Your task to perform on an android device: set default search engine in the chrome app Image 0: 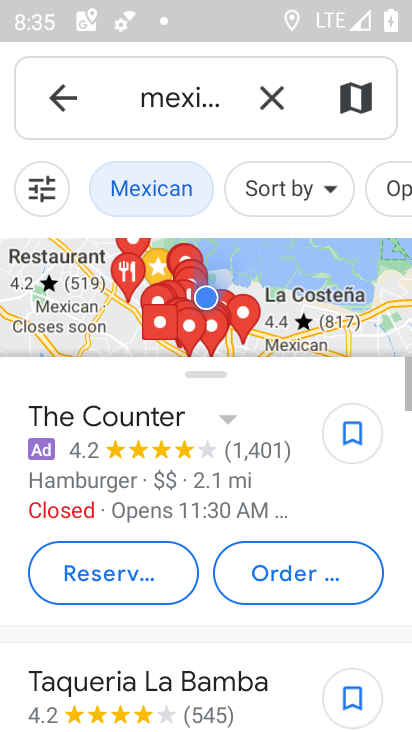
Step 0: press home button
Your task to perform on an android device: set default search engine in the chrome app Image 1: 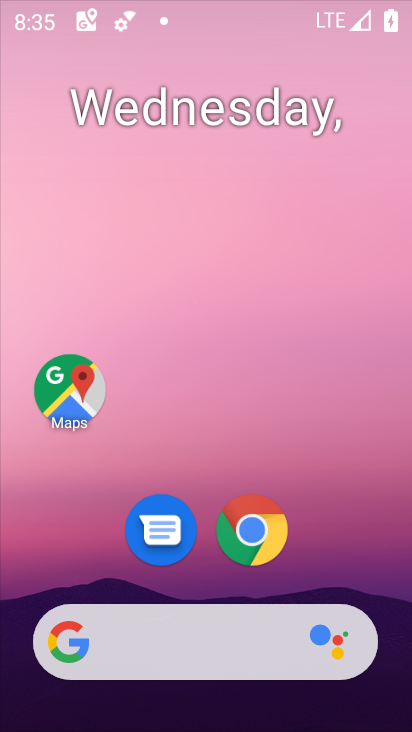
Step 1: drag from (397, 625) to (319, 32)
Your task to perform on an android device: set default search engine in the chrome app Image 2: 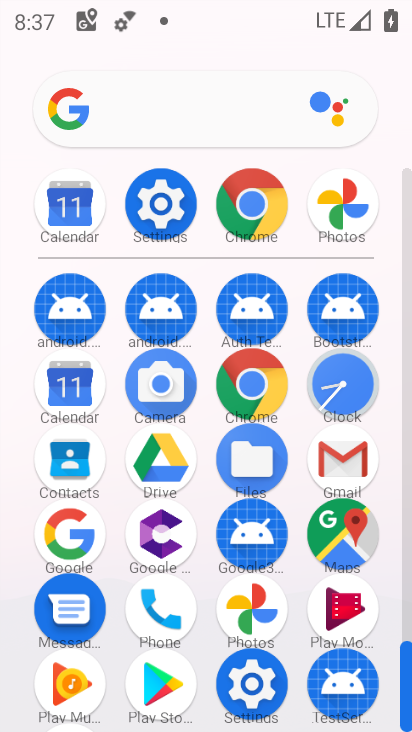
Step 2: click (269, 370)
Your task to perform on an android device: set default search engine in the chrome app Image 3: 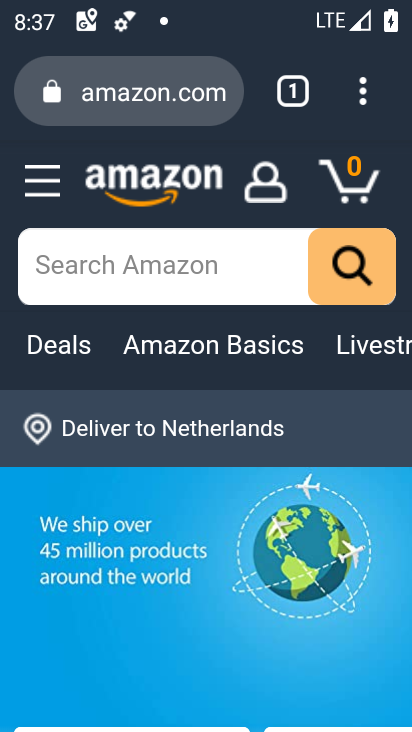
Step 3: press back button
Your task to perform on an android device: set default search engine in the chrome app Image 4: 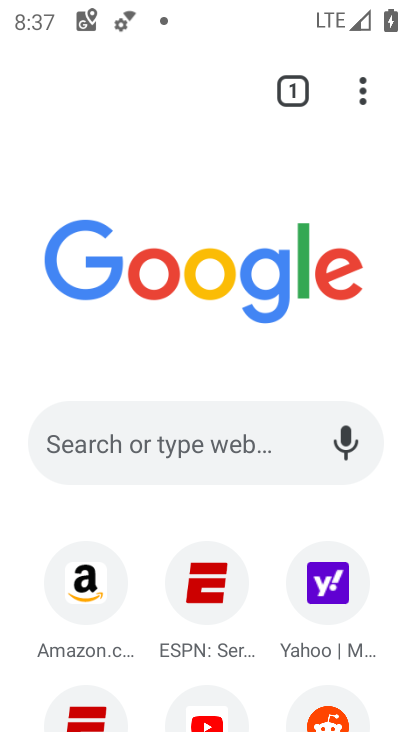
Step 4: click (357, 76)
Your task to perform on an android device: set default search engine in the chrome app Image 5: 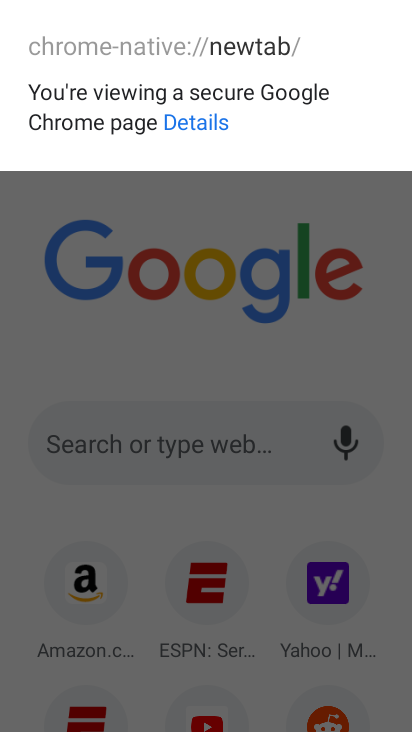
Step 5: click (282, 318)
Your task to perform on an android device: set default search engine in the chrome app Image 6: 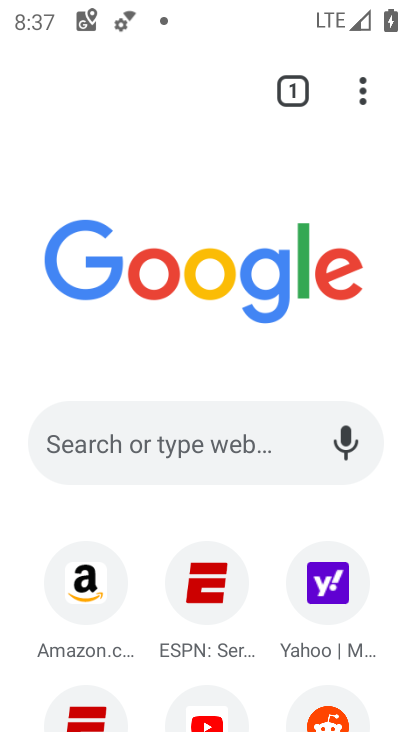
Step 6: click (367, 89)
Your task to perform on an android device: set default search engine in the chrome app Image 7: 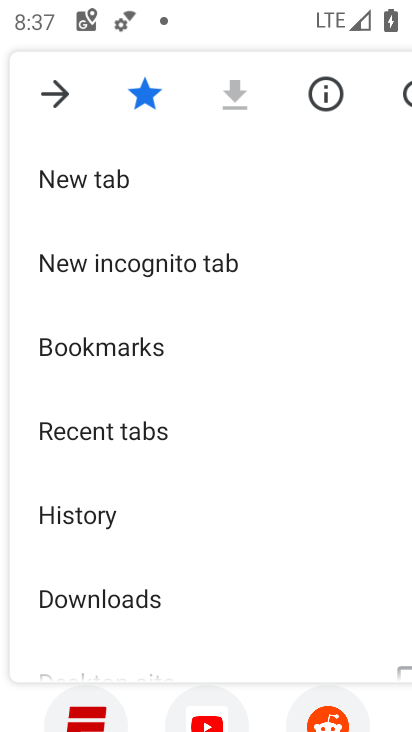
Step 7: drag from (107, 596) to (170, 380)
Your task to perform on an android device: set default search engine in the chrome app Image 8: 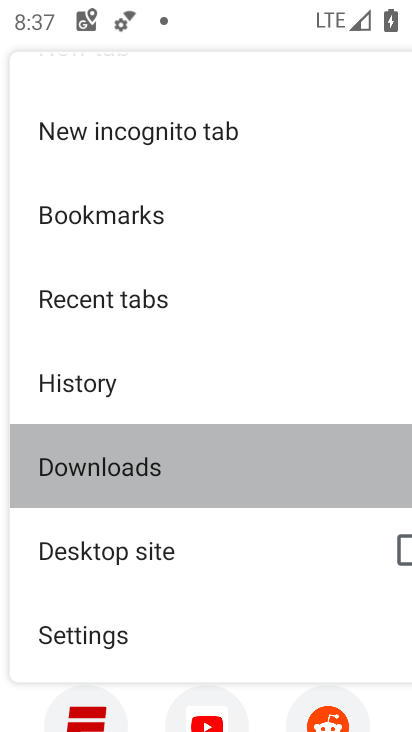
Step 8: drag from (175, 274) to (165, 198)
Your task to perform on an android device: set default search engine in the chrome app Image 9: 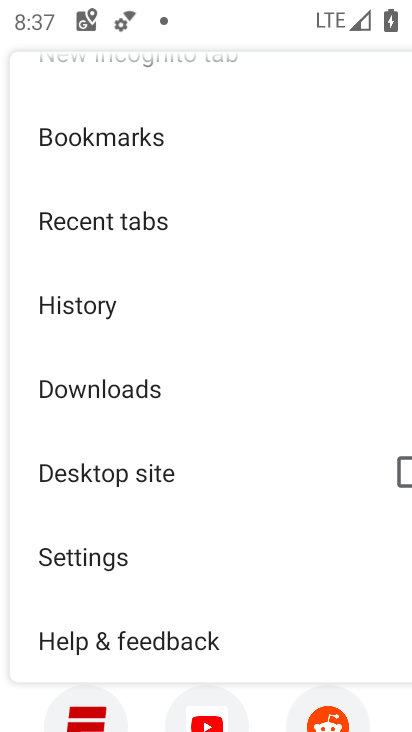
Step 9: click (125, 551)
Your task to perform on an android device: set default search engine in the chrome app Image 10: 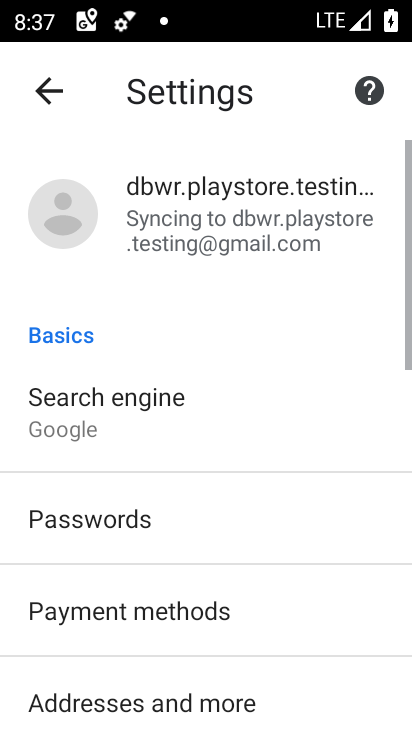
Step 10: click (111, 440)
Your task to perform on an android device: set default search engine in the chrome app Image 11: 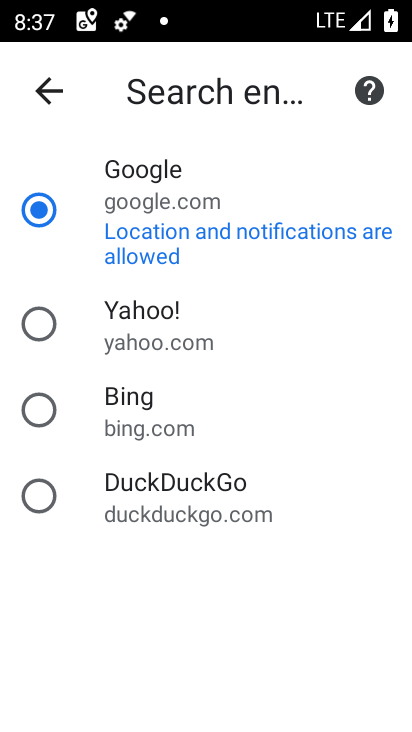
Step 11: click (91, 302)
Your task to perform on an android device: set default search engine in the chrome app Image 12: 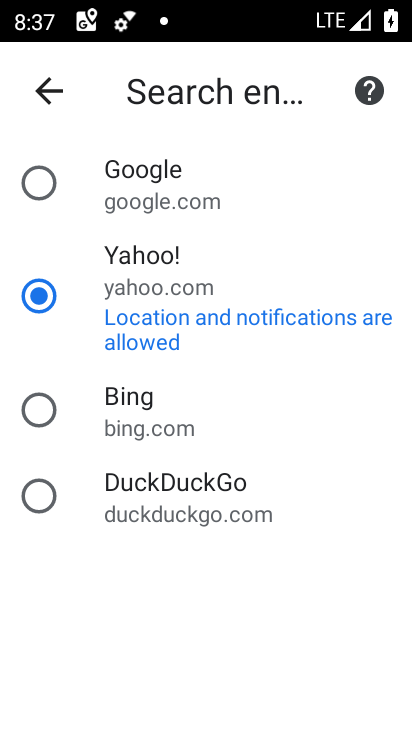
Step 12: task complete